Your task to perform on an android device: check google app version Image 0: 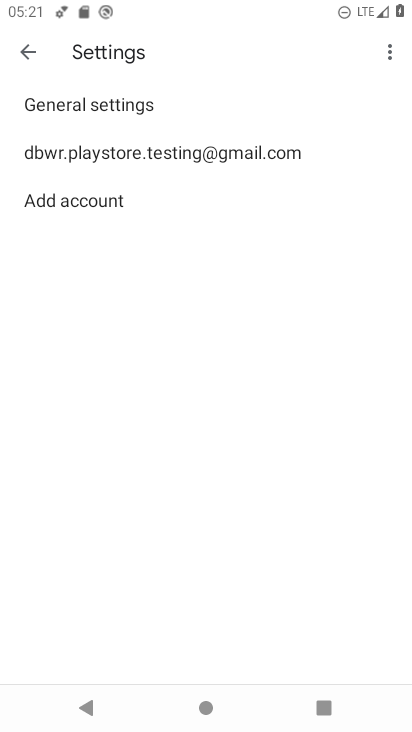
Step 0: press home button
Your task to perform on an android device: check google app version Image 1: 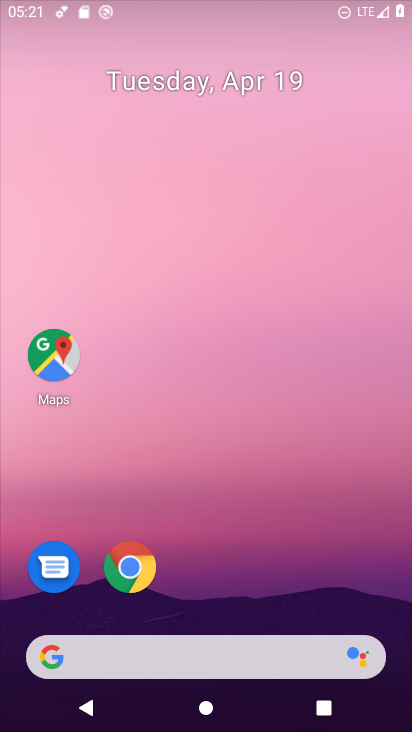
Step 1: drag from (273, 571) to (312, 43)
Your task to perform on an android device: check google app version Image 2: 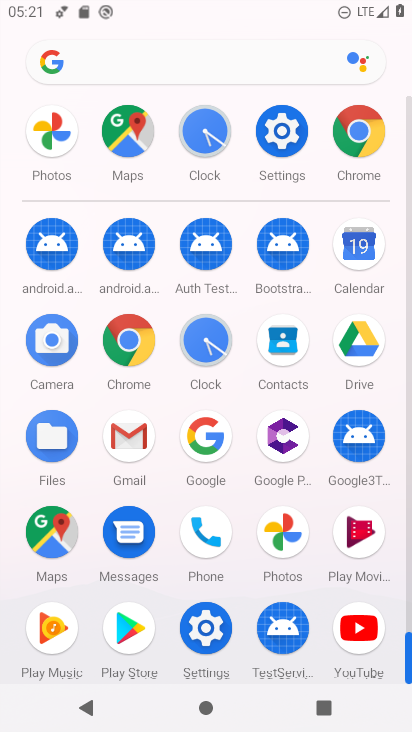
Step 2: click (136, 350)
Your task to perform on an android device: check google app version Image 3: 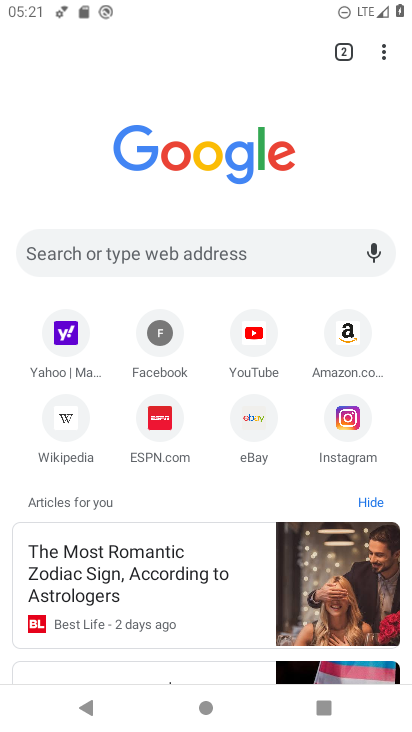
Step 3: click (380, 46)
Your task to perform on an android device: check google app version Image 4: 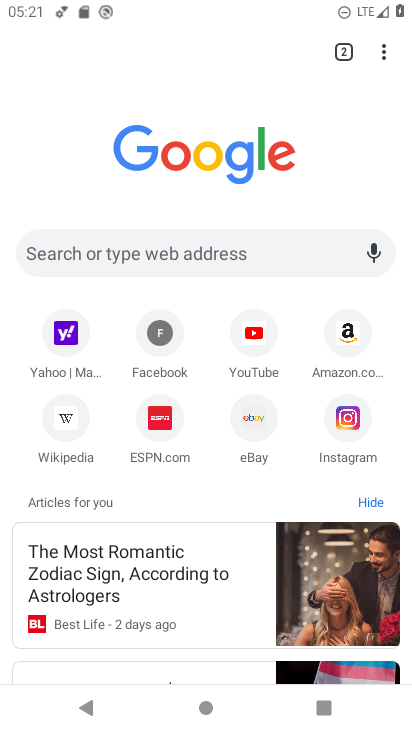
Step 4: click (374, 54)
Your task to perform on an android device: check google app version Image 5: 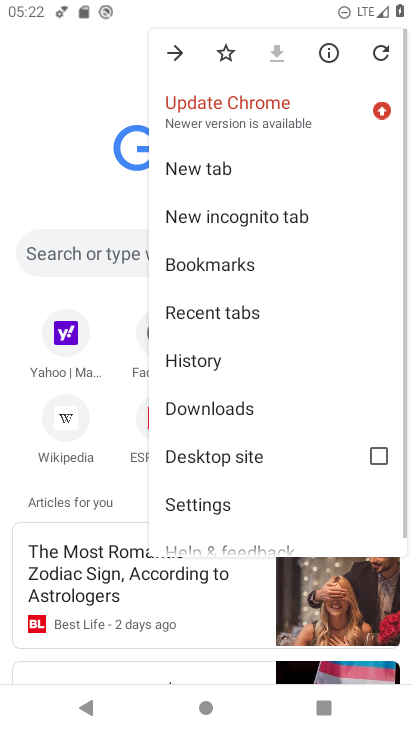
Step 5: drag from (297, 468) to (326, 117)
Your task to perform on an android device: check google app version Image 6: 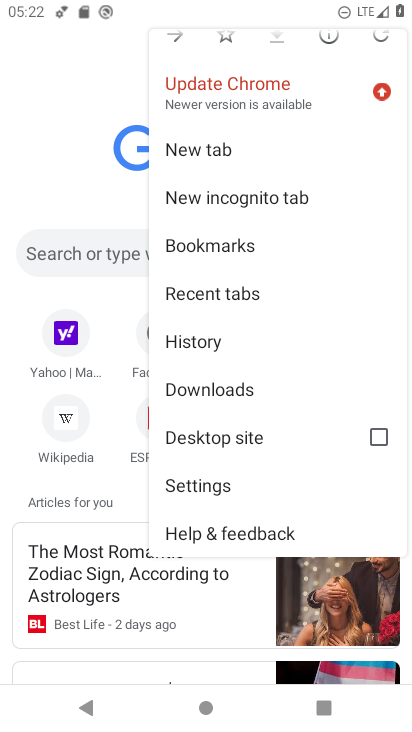
Step 6: click (235, 538)
Your task to perform on an android device: check google app version Image 7: 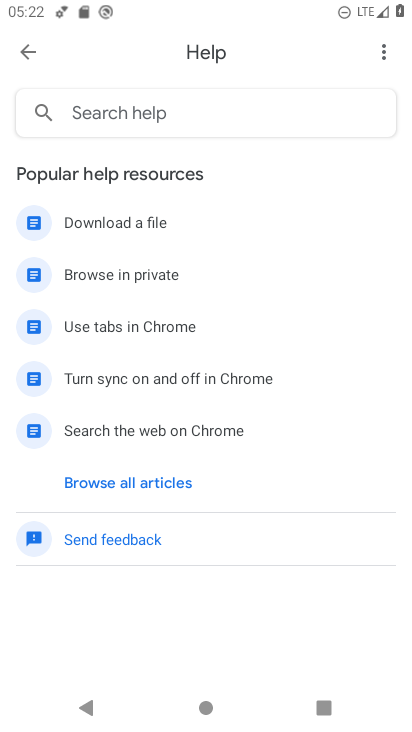
Step 7: drag from (267, 547) to (300, 256)
Your task to perform on an android device: check google app version Image 8: 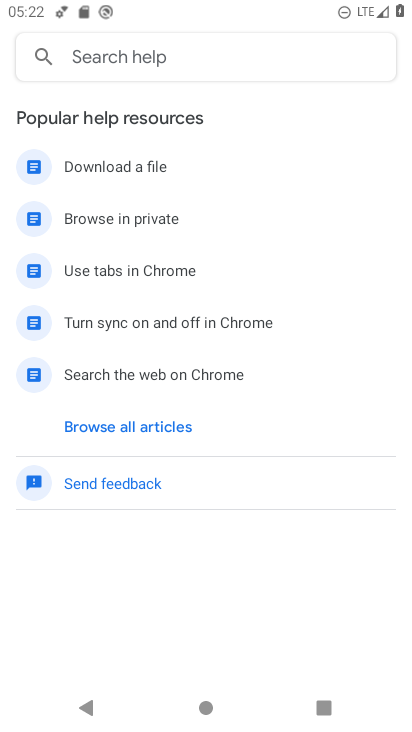
Step 8: drag from (306, 250) to (280, 697)
Your task to perform on an android device: check google app version Image 9: 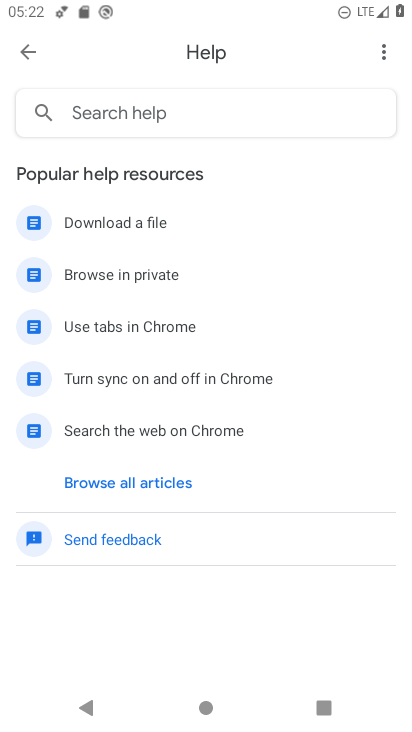
Step 9: click (379, 50)
Your task to perform on an android device: check google app version Image 10: 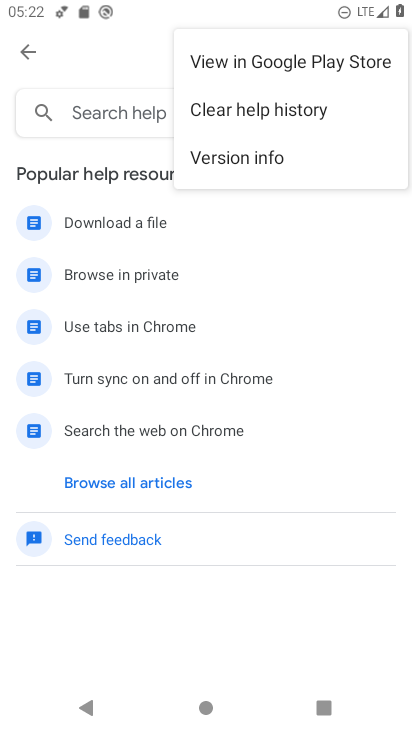
Step 10: click (296, 167)
Your task to perform on an android device: check google app version Image 11: 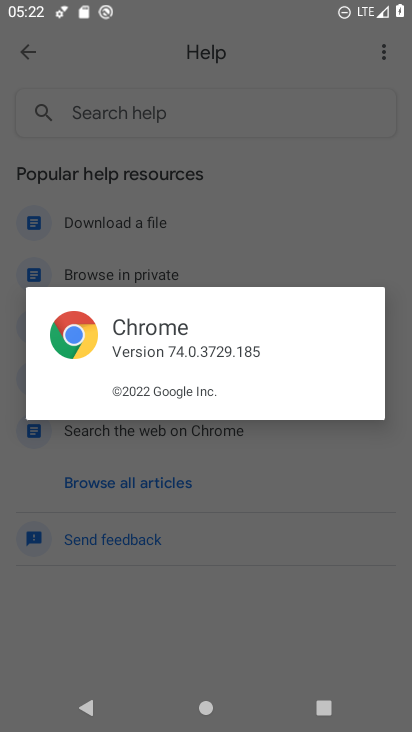
Step 11: task complete